Your task to perform on an android device: Open Google Maps Image 0: 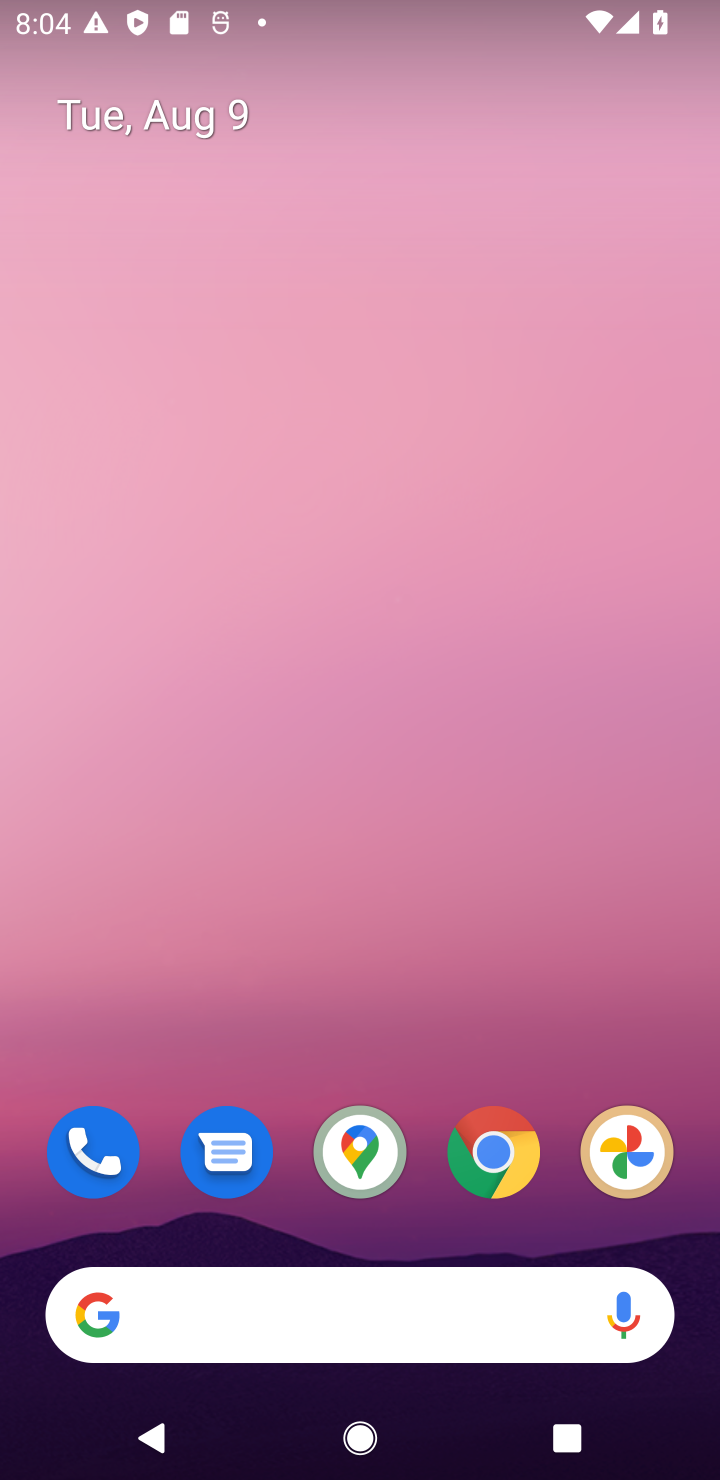
Step 0: click (290, 1120)
Your task to perform on an android device: Open Google Maps Image 1: 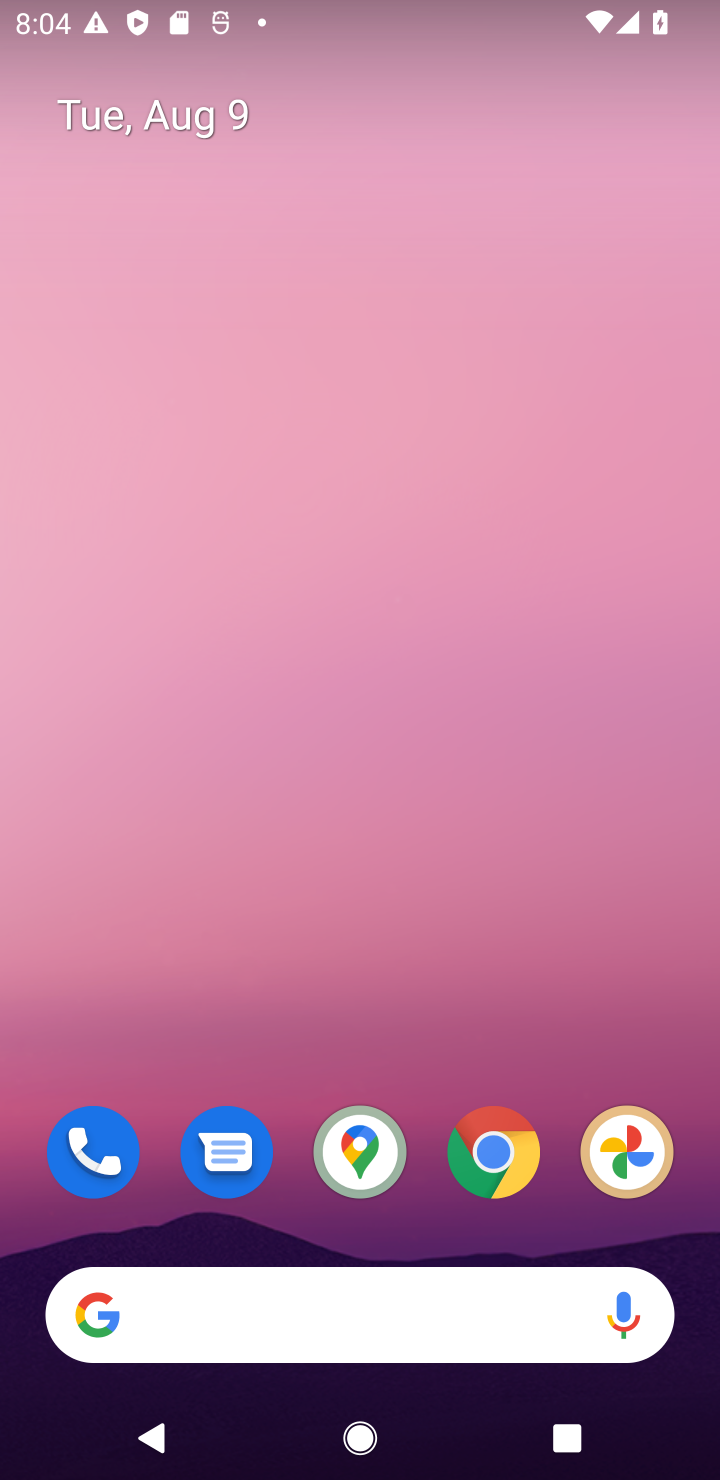
Step 1: click (339, 1141)
Your task to perform on an android device: Open Google Maps Image 2: 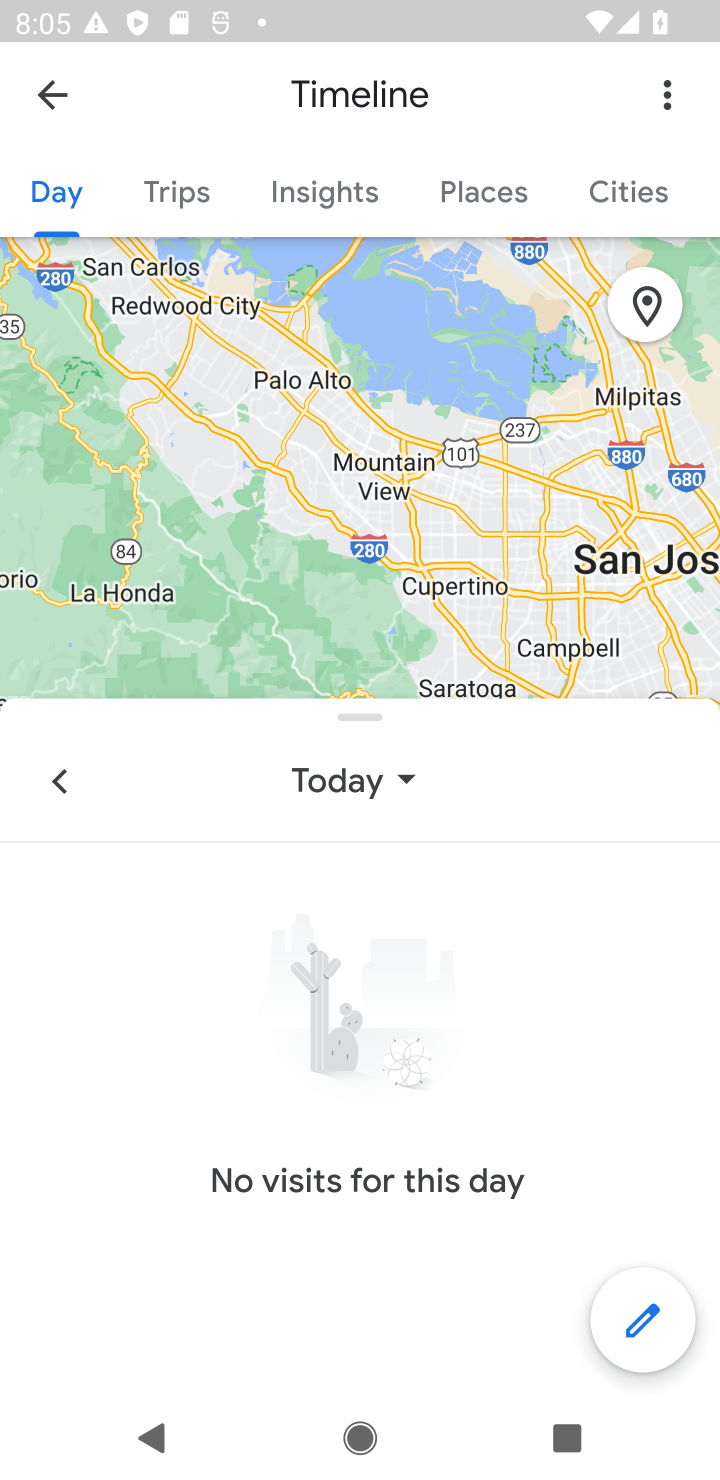
Step 2: task complete